Your task to perform on an android device: choose inbox layout in the gmail app Image 0: 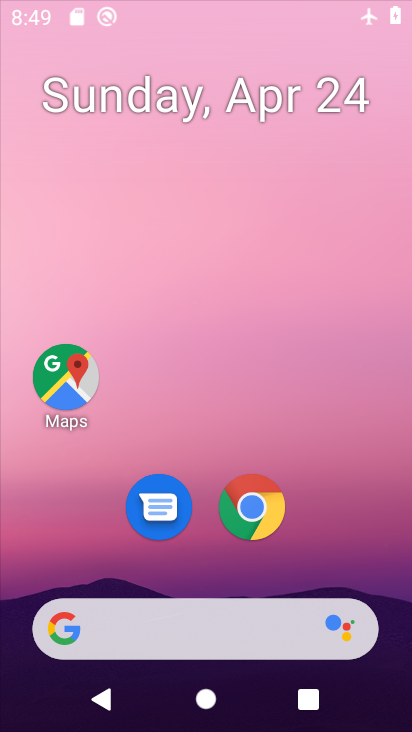
Step 0: click (268, 508)
Your task to perform on an android device: choose inbox layout in the gmail app Image 1: 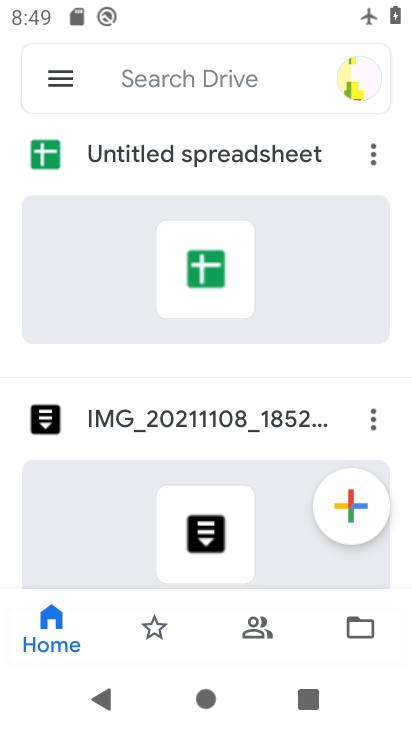
Step 1: press home button
Your task to perform on an android device: choose inbox layout in the gmail app Image 2: 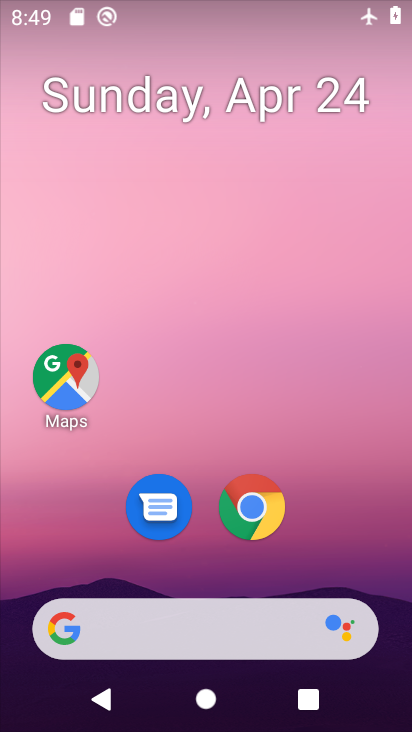
Step 2: drag from (222, 453) to (198, 2)
Your task to perform on an android device: choose inbox layout in the gmail app Image 3: 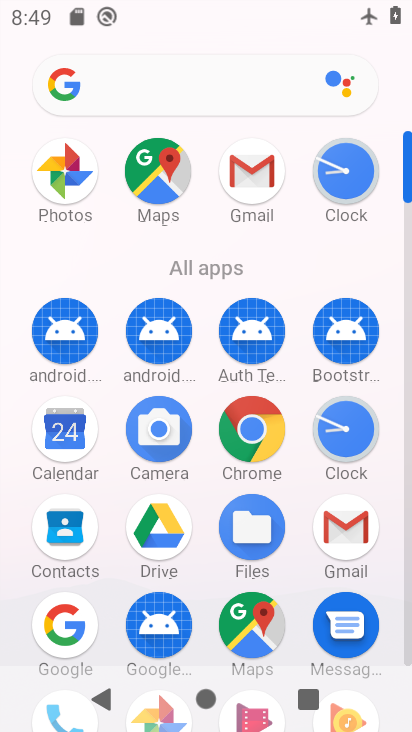
Step 3: click (258, 177)
Your task to perform on an android device: choose inbox layout in the gmail app Image 4: 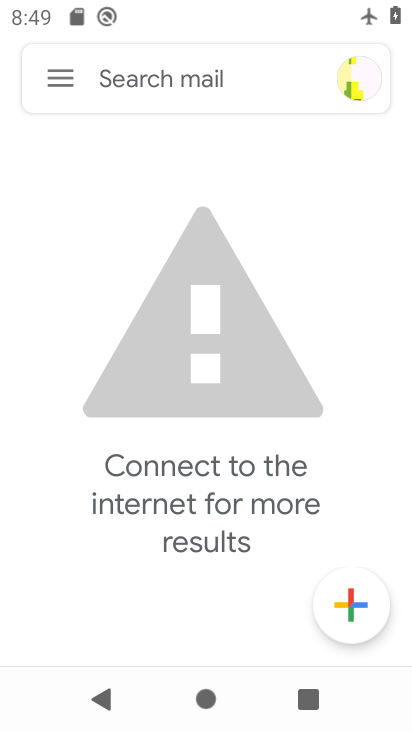
Step 4: click (65, 88)
Your task to perform on an android device: choose inbox layout in the gmail app Image 5: 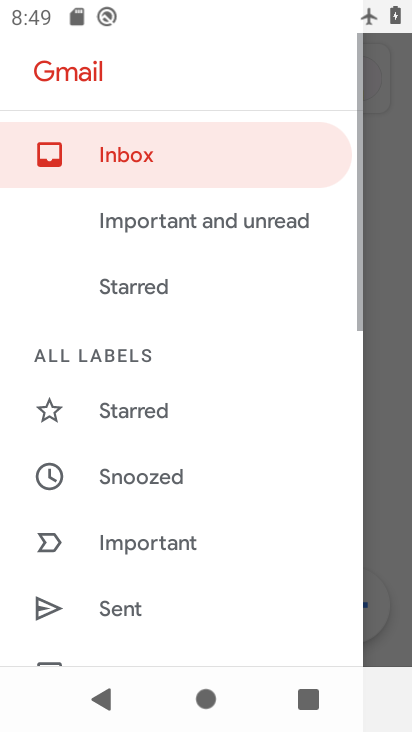
Step 5: drag from (181, 589) to (152, 6)
Your task to perform on an android device: choose inbox layout in the gmail app Image 6: 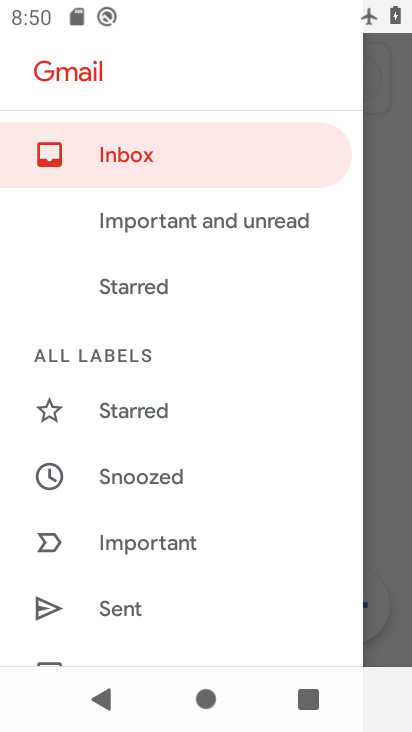
Step 6: drag from (216, 461) to (229, 7)
Your task to perform on an android device: choose inbox layout in the gmail app Image 7: 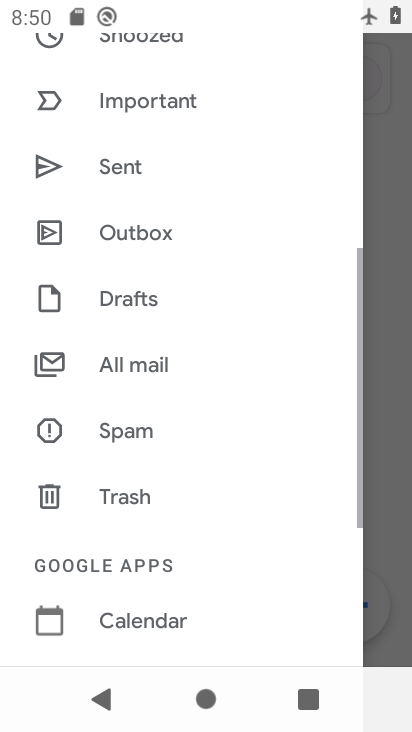
Step 7: drag from (210, 600) to (214, 218)
Your task to perform on an android device: choose inbox layout in the gmail app Image 8: 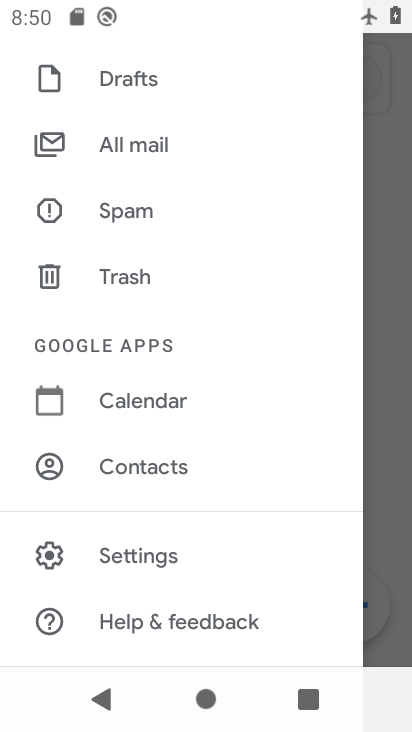
Step 8: click (158, 558)
Your task to perform on an android device: choose inbox layout in the gmail app Image 9: 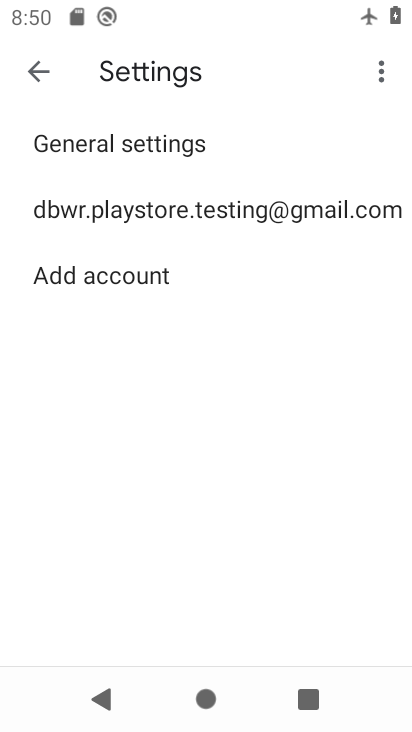
Step 9: click (166, 212)
Your task to perform on an android device: choose inbox layout in the gmail app Image 10: 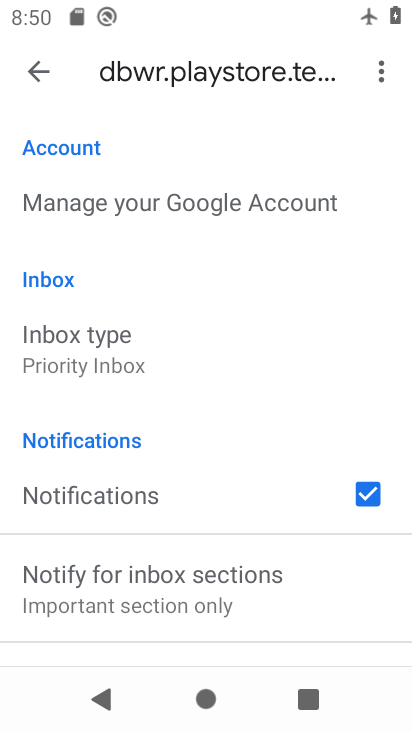
Step 10: click (128, 350)
Your task to perform on an android device: choose inbox layout in the gmail app Image 11: 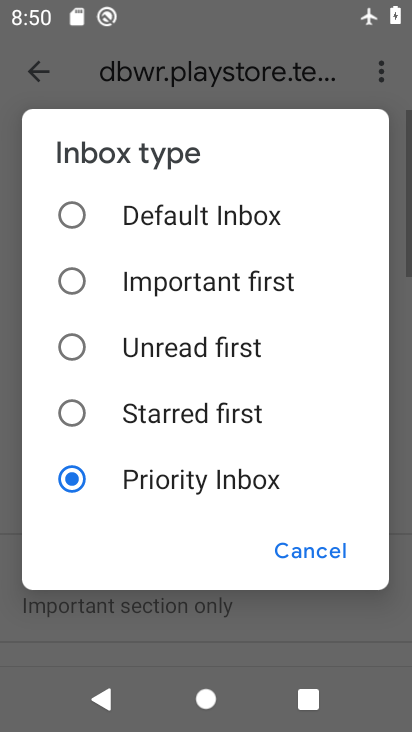
Step 11: click (105, 284)
Your task to perform on an android device: choose inbox layout in the gmail app Image 12: 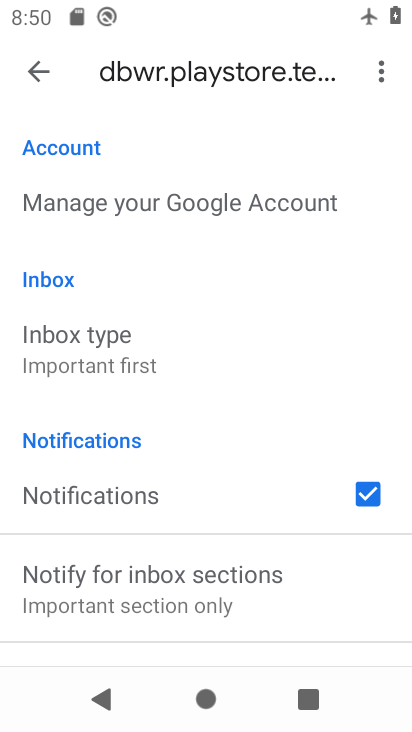
Step 12: task complete